Your task to perform on an android device: Go to Wikipedia Image 0: 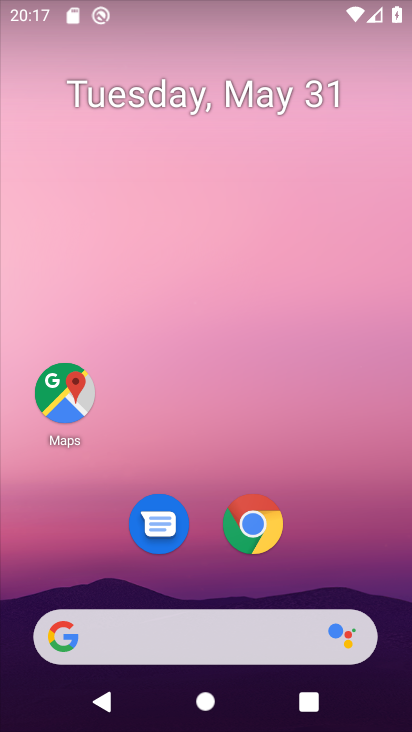
Step 0: click (257, 515)
Your task to perform on an android device: Go to Wikipedia Image 1: 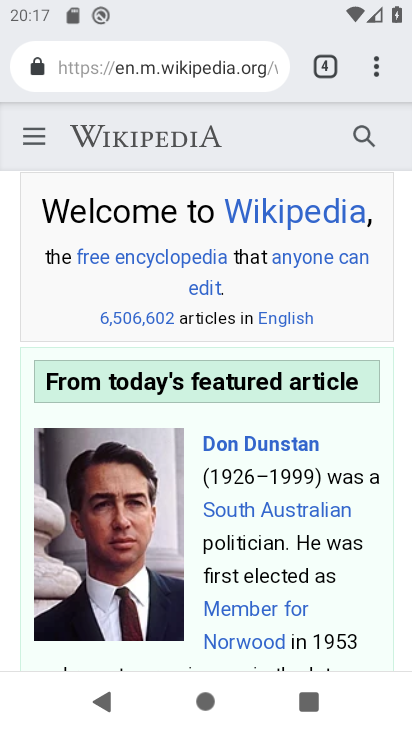
Step 1: task complete